Your task to perform on an android device: check data usage Image 0: 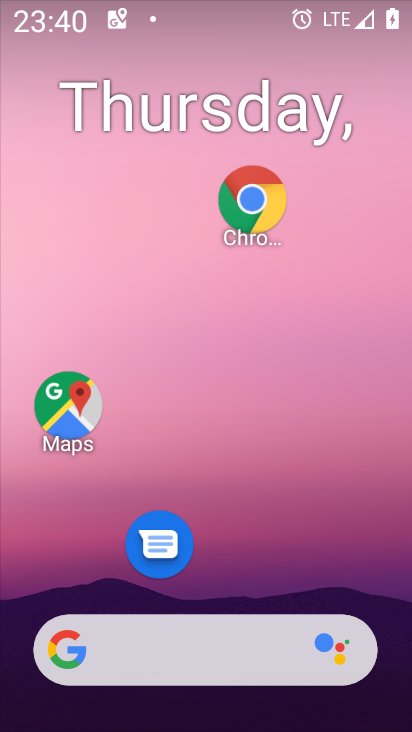
Step 0: drag from (247, 581) to (259, 73)
Your task to perform on an android device: check data usage Image 1: 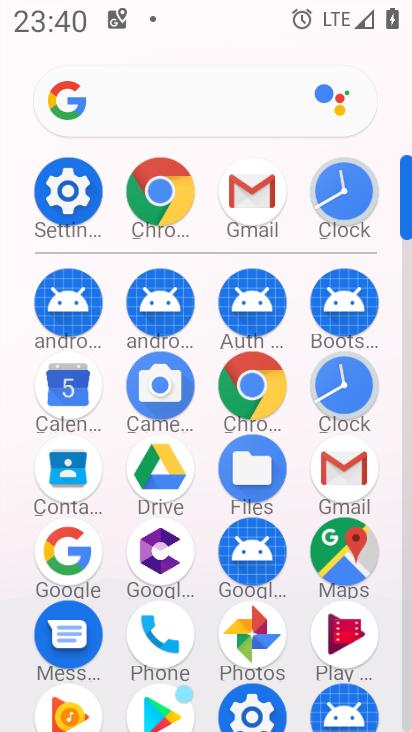
Step 1: click (71, 185)
Your task to perform on an android device: check data usage Image 2: 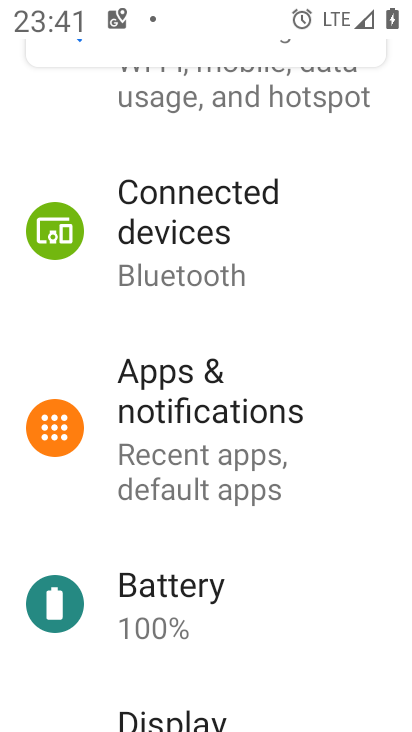
Step 2: drag from (83, 210) to (151, 650)
Your task to perform on an android device: check data usage Image 3: 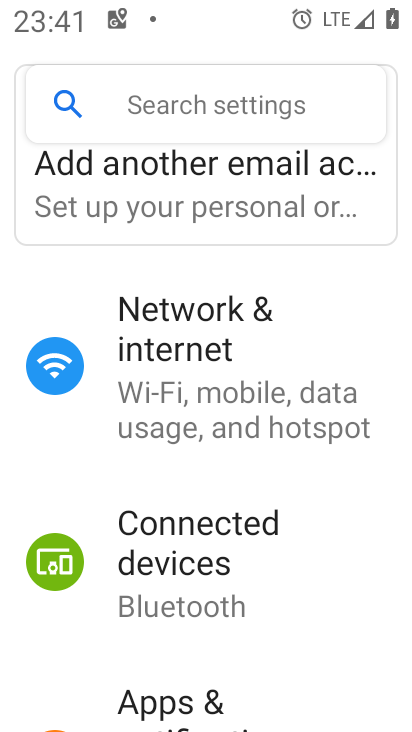
Step 3: click (199, 409)
Your task to perform on an android device: check data usage Image 4: 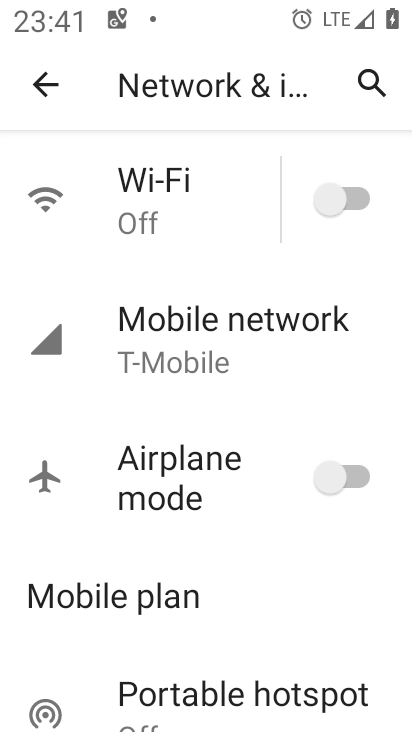
Step 4: click (202, 351)
Your task to perform on an android device: check data usage Image 5: 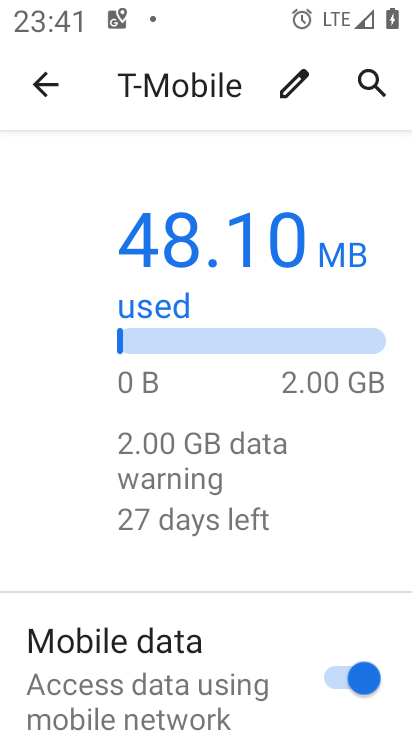
Step 5: task complete